Your task to perform on an android device: turn vacation reply on in the gmail app Image 0: 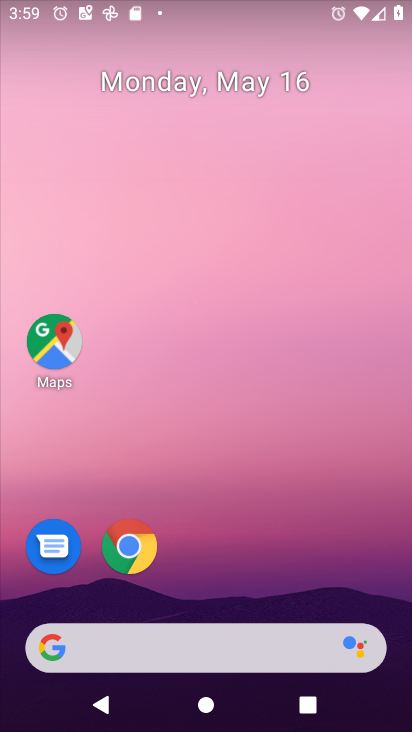
Step 0: drag from (361, 581) to (364, 96)
Your task to perform on an android device: turn vacation reply on in the gmail app Image 1: 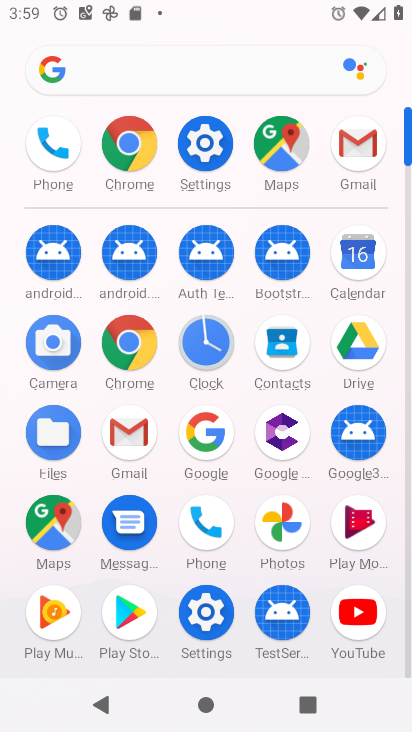
Step 1: click (125, 438)
Your task to perform on an android device: turn vacation reply on in the gmail app Image 2: 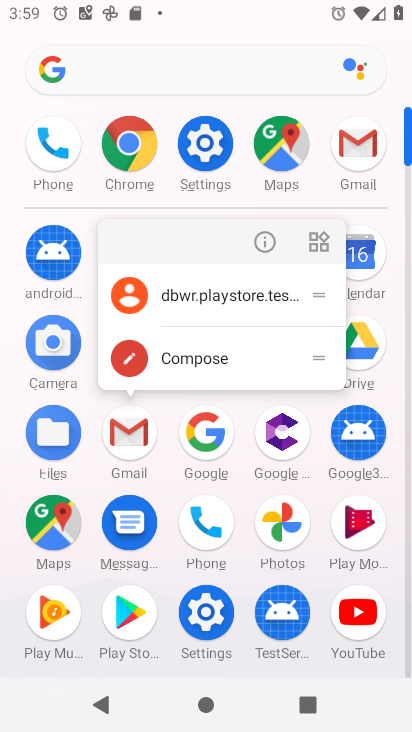
Step 2: click (125, 438)
Your task to perform on an android device: turn vacation reply on in the gmail app Image 3: 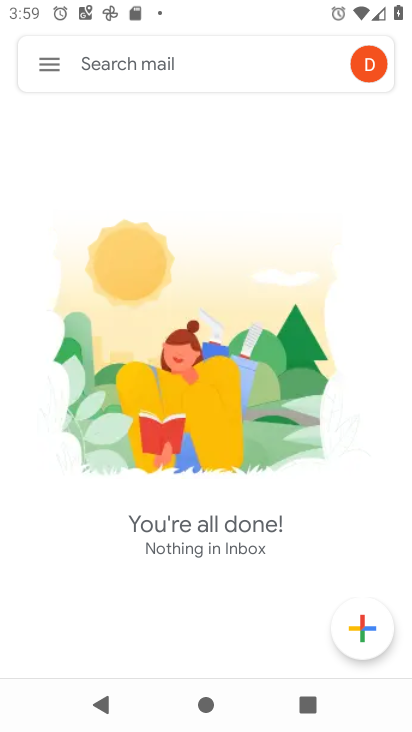
Step 3: click (47, 71)
Your task to perform on an android device: turn vacation reply on in the gmail app Image 4: 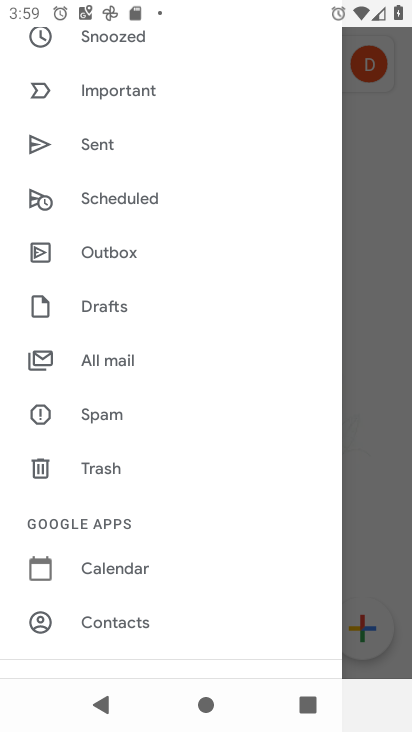
Step 4: drag from (235, 276) to (226, 430)
Your task to perform on an android device: turn vacation reply on in the gmail app Image 5: 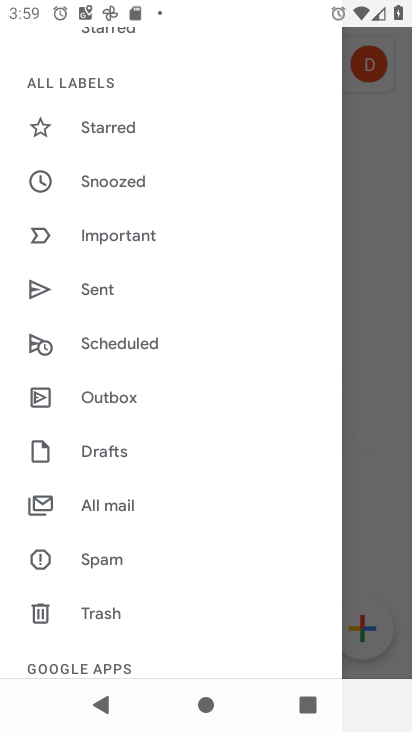
Step 5: drag from (246, 219) to (238, 380)
Your task to perform on an android device: turn vacation reply on in the gmail app Image 6: 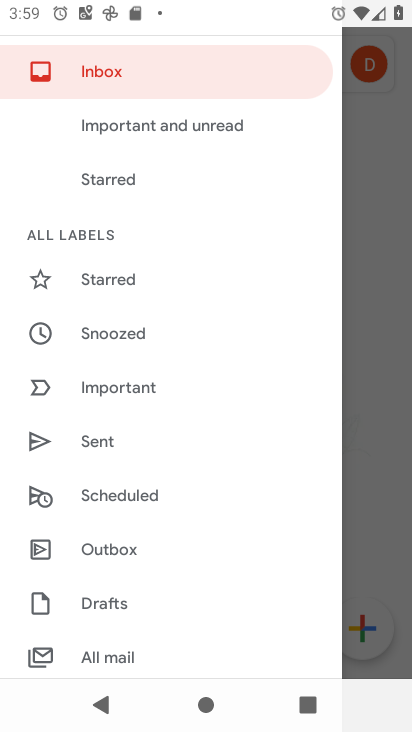
Step 6: drag from (245, 211) to (247, 382)
Your task to perform on an android device: turn vacation reply on in the gmail app Image 7: 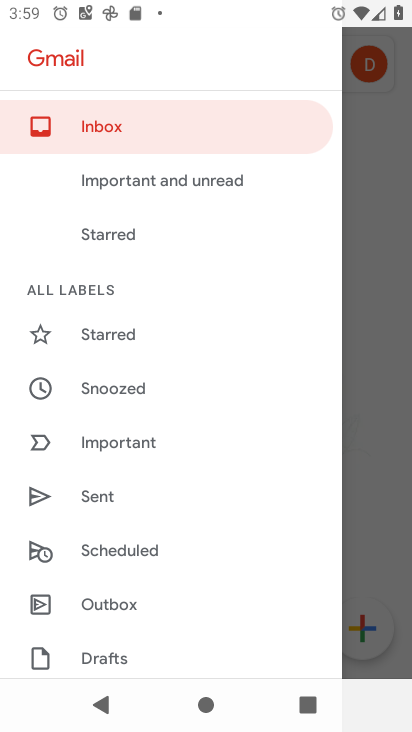
Step 7: drag from (231, 554) to (231, 404)
Your task to perform on an android device: turn vacation reply on in the gmail app Image 8: 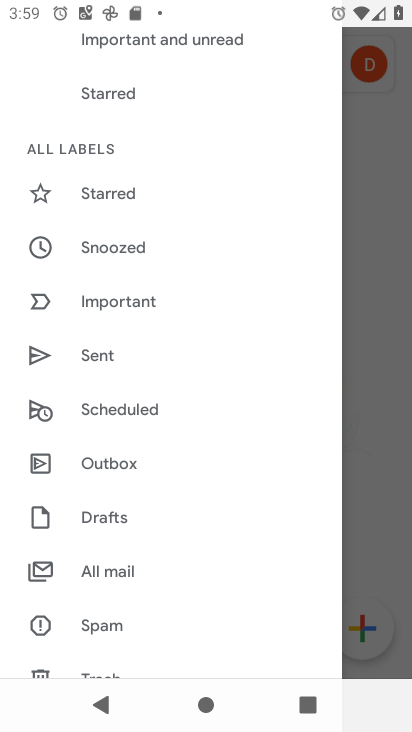
Step 8: drag from (234, 594) to (249, 408)
Your task to perform on an android device: turn vacation reply on in the gmail app Image 9: 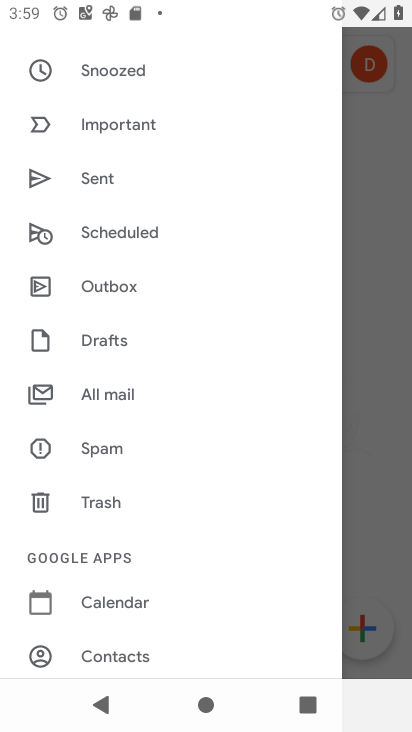
Step 9: drag from (221, 607) to (239, 428)
Your task to perform on an android device: turn vacation reply on in the gmail app Image 10: 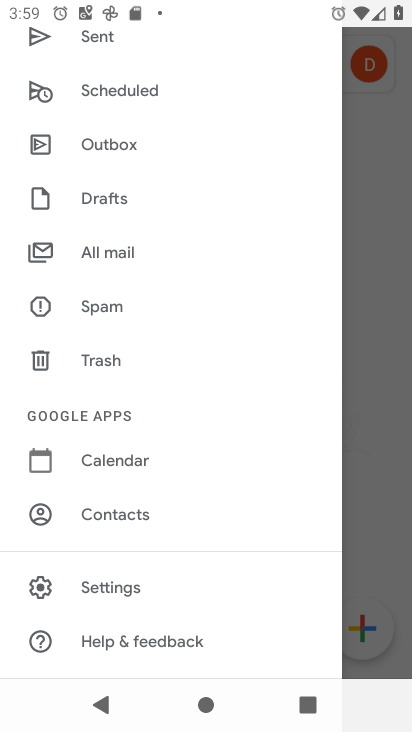
Step 10: drag from (228, 621) to (245, 471)
Your task to perform on an android device: turn vacation reply on in the gmail app Image 11: 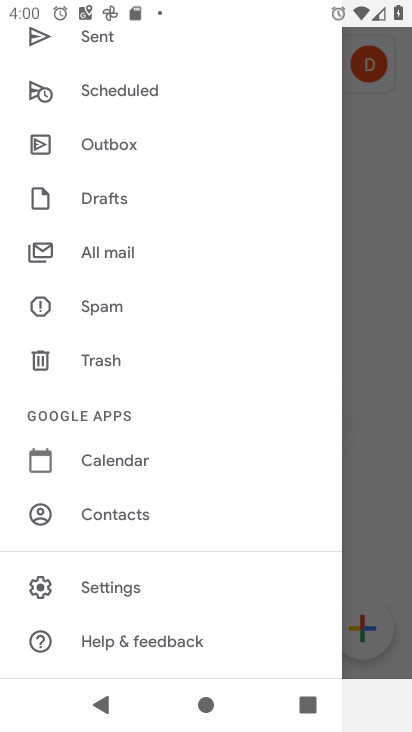
Step 11: click (123, 593)
Your task to perform on an android device: turn vacation reply on in the gmail app Image 12: 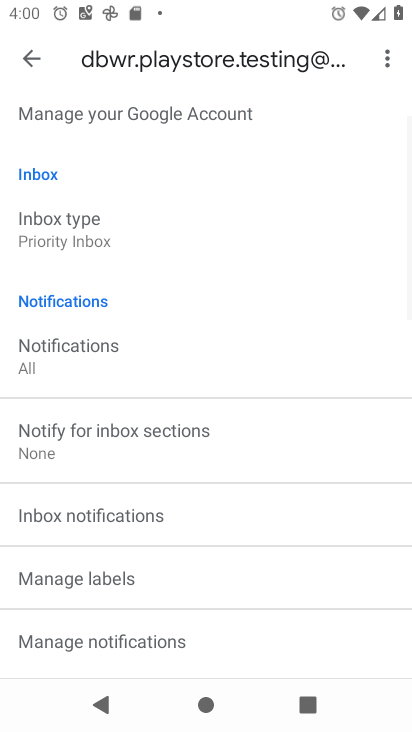
Step 12: drag from (309, 580) to (331, 376)
Your task to perform on an android device: turn vacation reply on in the gmail app Image 13: 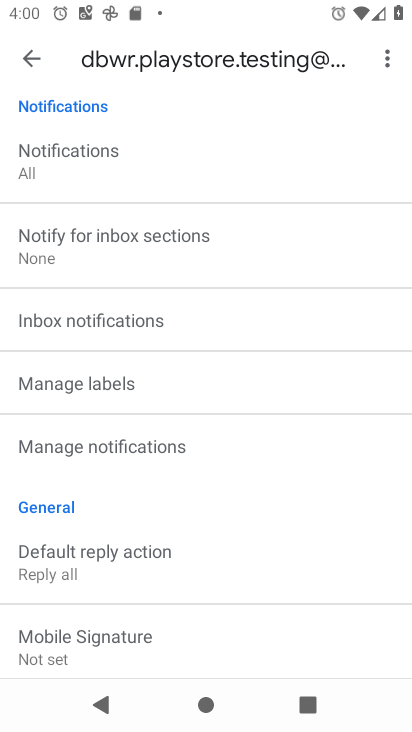
Step 13: drag from (307, 610) to (307, 427)
Your task to perform on an android device: turn vacation reply on in the gmail app Image 14: 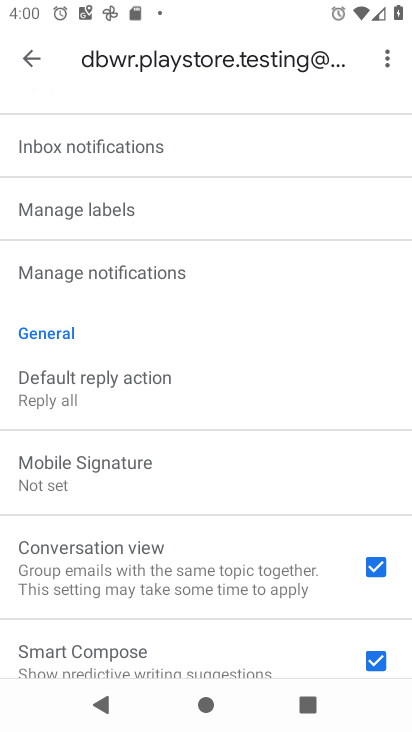
Step 14: drag from (297, 635) to (305, 451)
Your task to perform on an android device: turn vacation reply on in the gmail app Image 15: 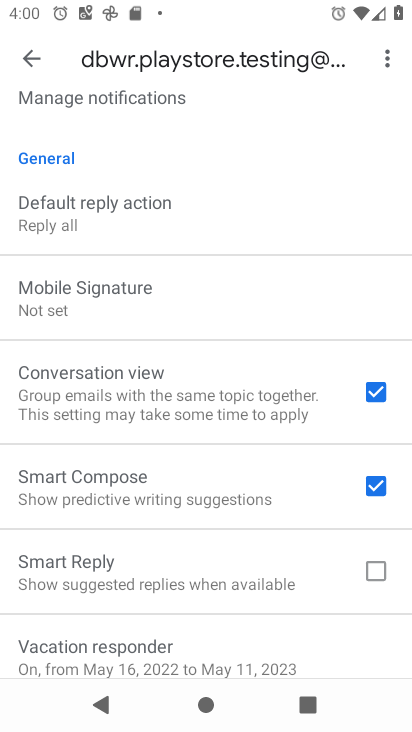
Step 15: drag from (305, 626) to (322, 460)
Your task to perform on an android device: turn vacation reply on in the gmail app Image 16: 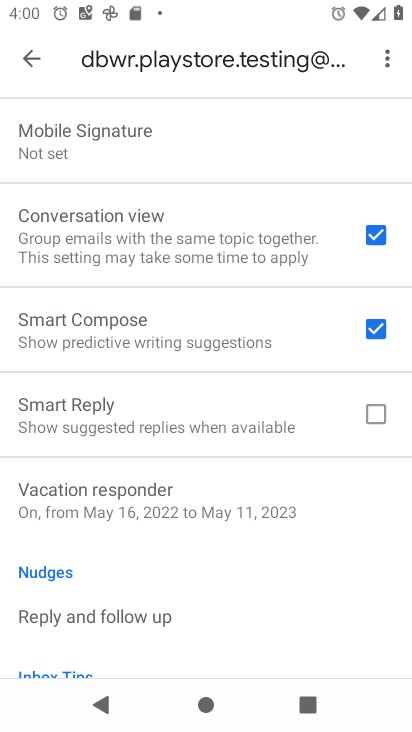
Step 16: drag from (293, 619) to (291, 489)
Your task to perform on an android device: turn vacation reply on in the gmail app Image 17: 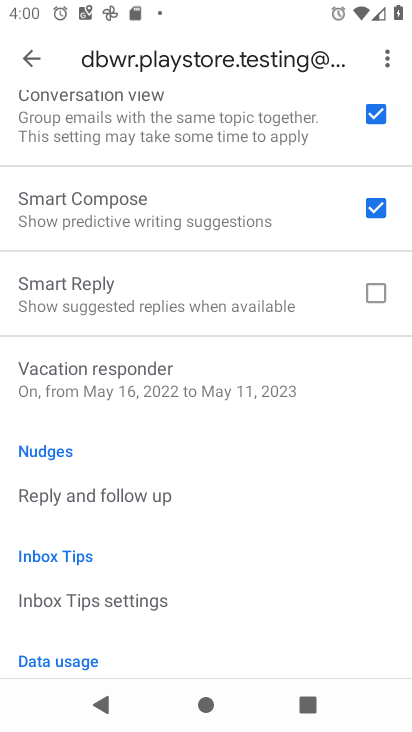
Step 17: drag from (258, 613) to (257, 491)
Your task to perform on an android device: turn vacation reply on in the gmail app Image 18: 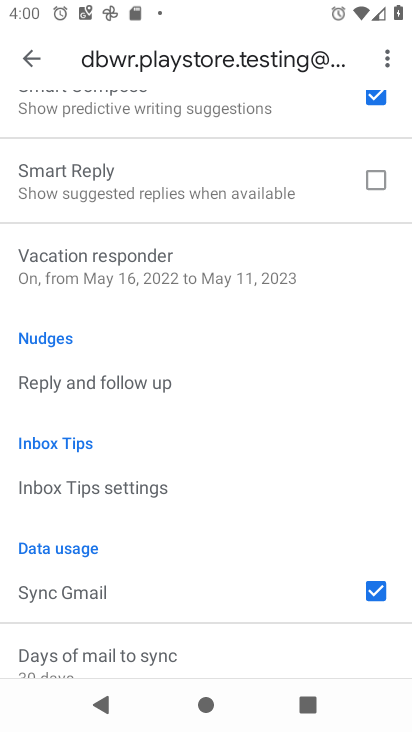
Step 18: click (199, 282)
Your task to perform on an android device: turn vacation reply on in the gmail app Image 19: 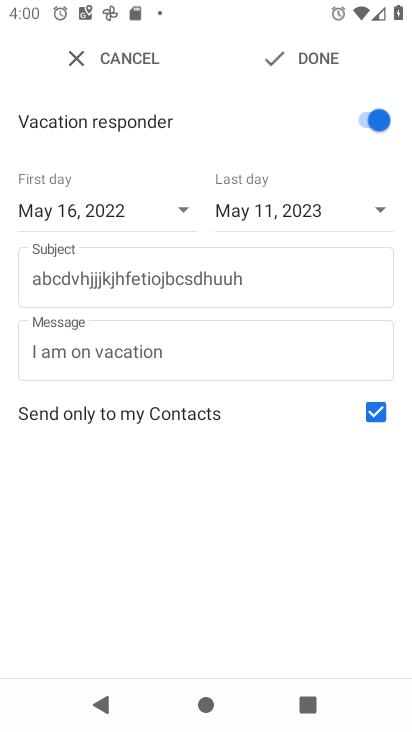
Step 19: task complete